Your task to perform on an android device: install app "Google Maps" Image 0: 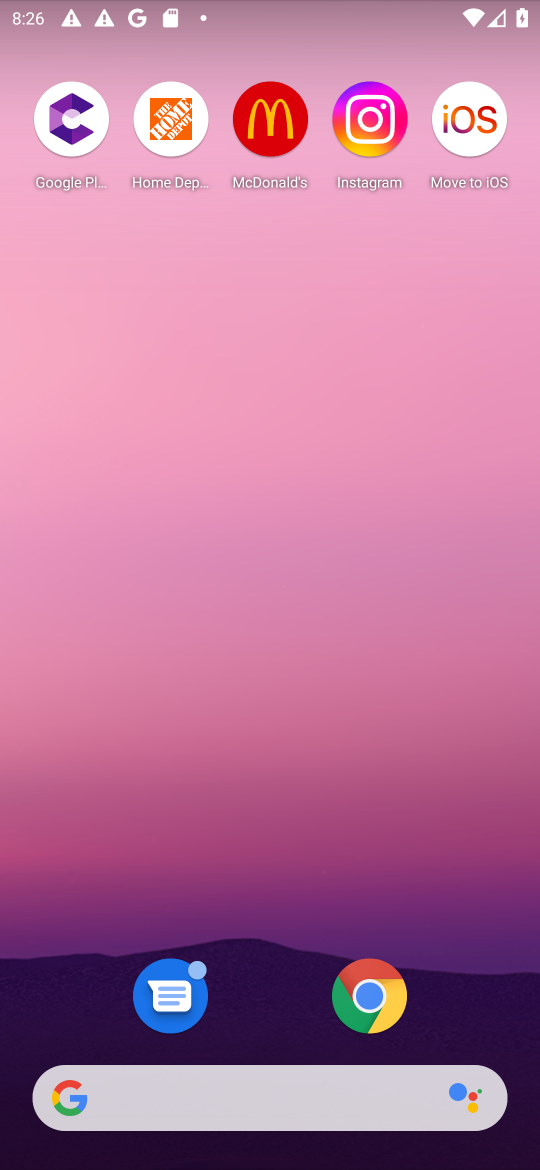
Step 0: press home button
Your task to perform on an android device: install app "Google Maps" Image 1: 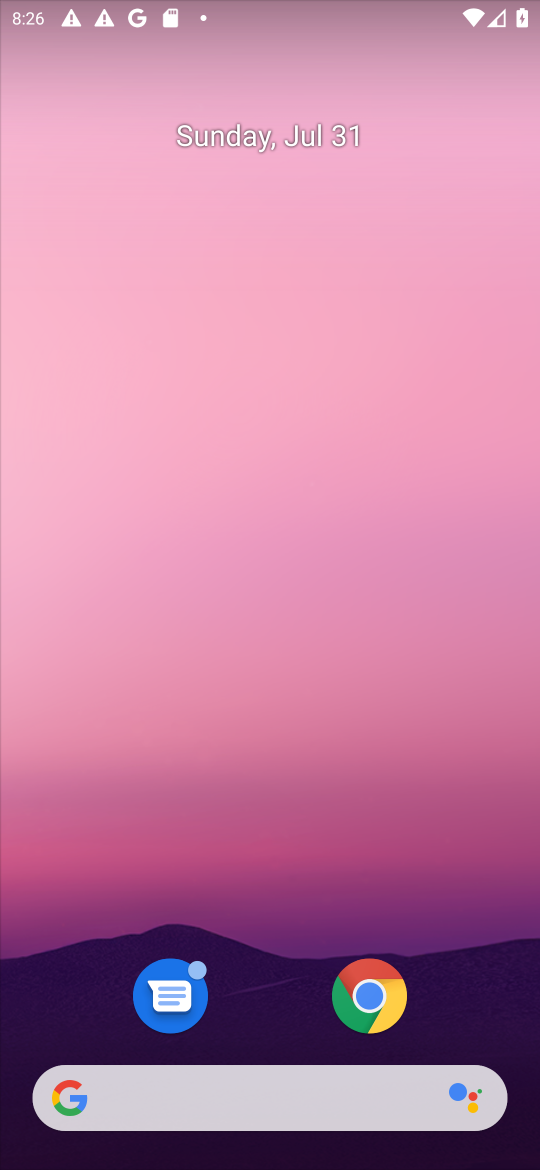
Step 1: drag from (442, 1011) to (449, 170)
Your task to perform on an android device: install app "Google Maps" Image 2: 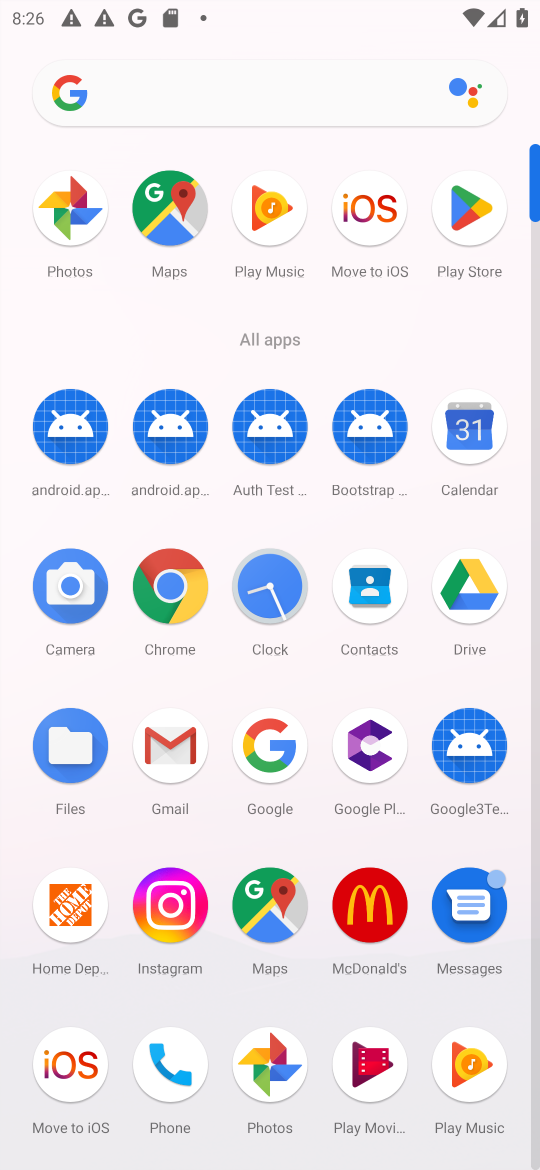
Step 2: click (470, 212)
Your task to perform on an android device: install app "Google Maps" Image 3: 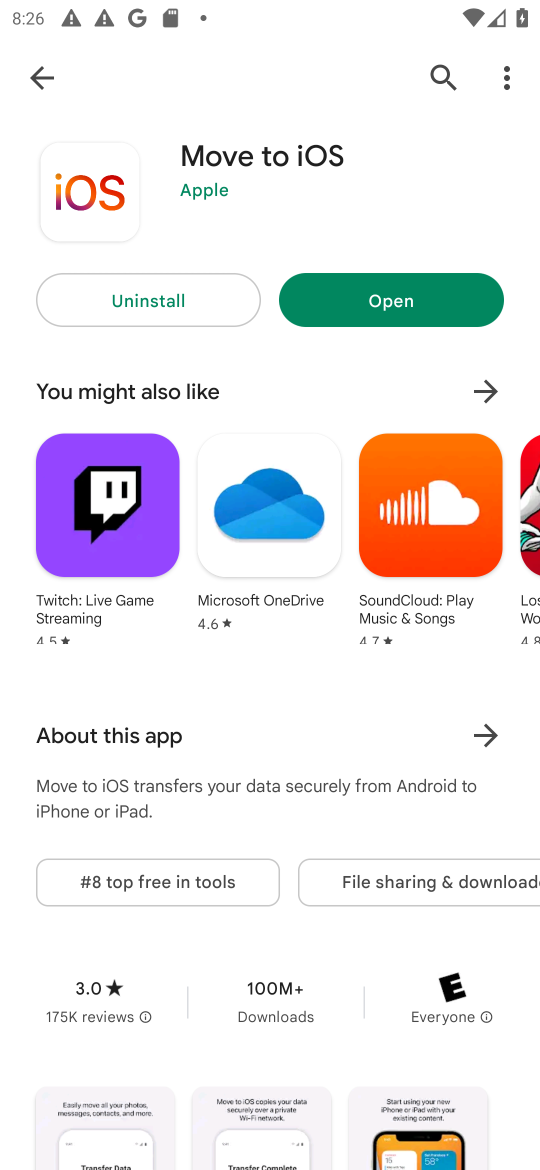
Step 3: press back button
Your task to perform on an android device: install app "Google Maps" Image 4: 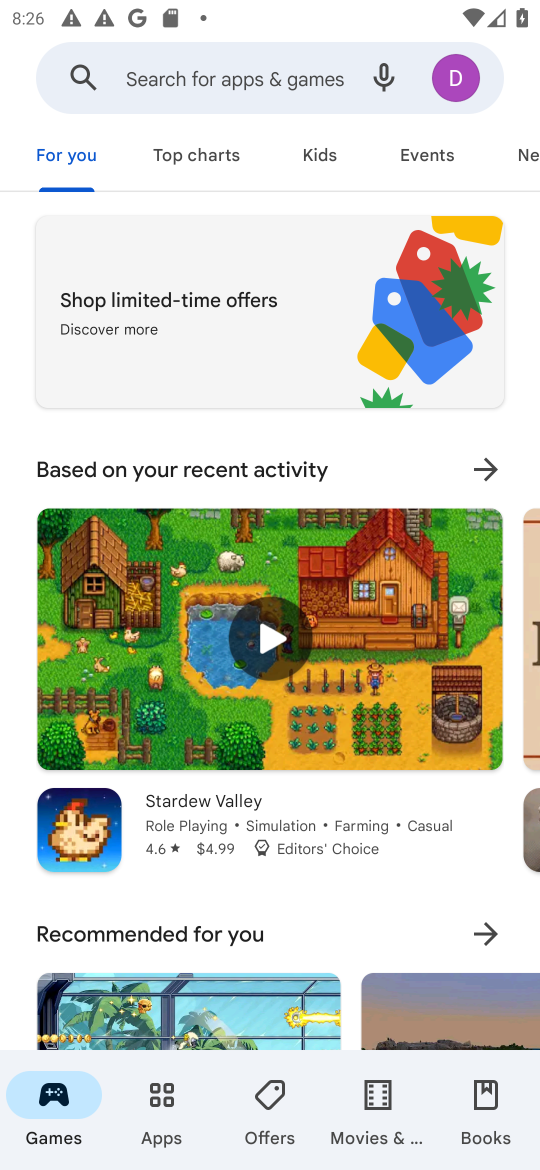
Step 4: type "google maps"
Your task to perform on an android device: install app "Google Maps" Image 5: 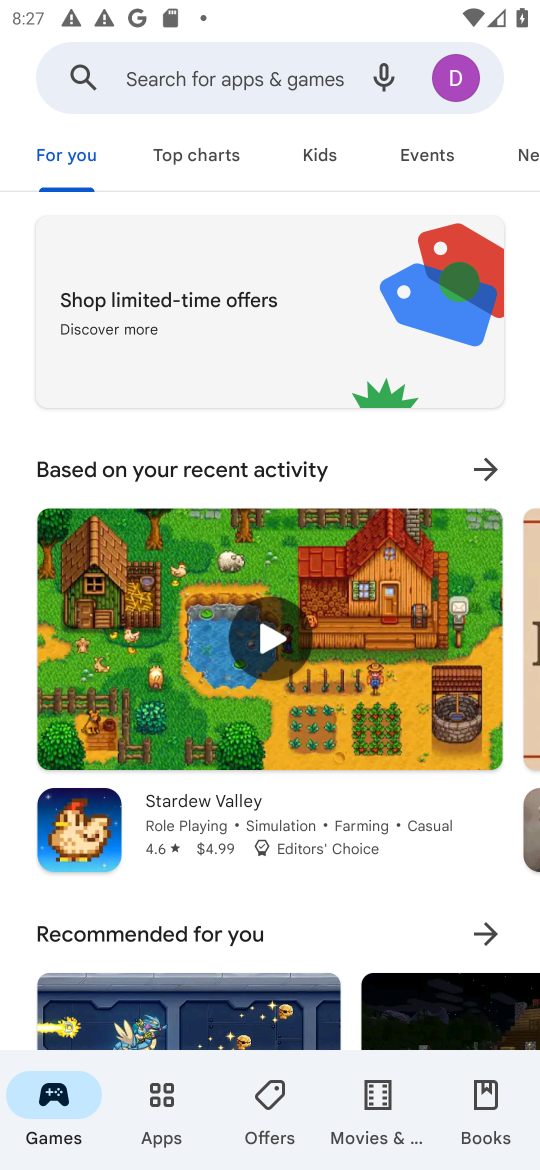
Step 5: click (264, 69)
Your task to perform on an android device: install app "Google Maps" Image 6: 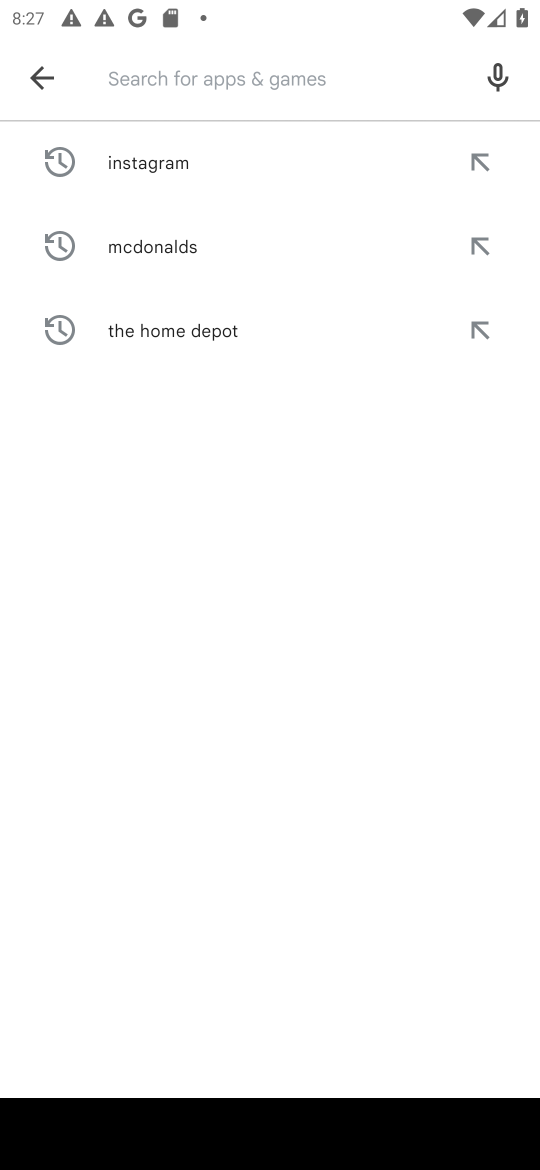
Step 6: type "google maps"
Your task to perform on an android device: install app "Google Maps" Image 7: 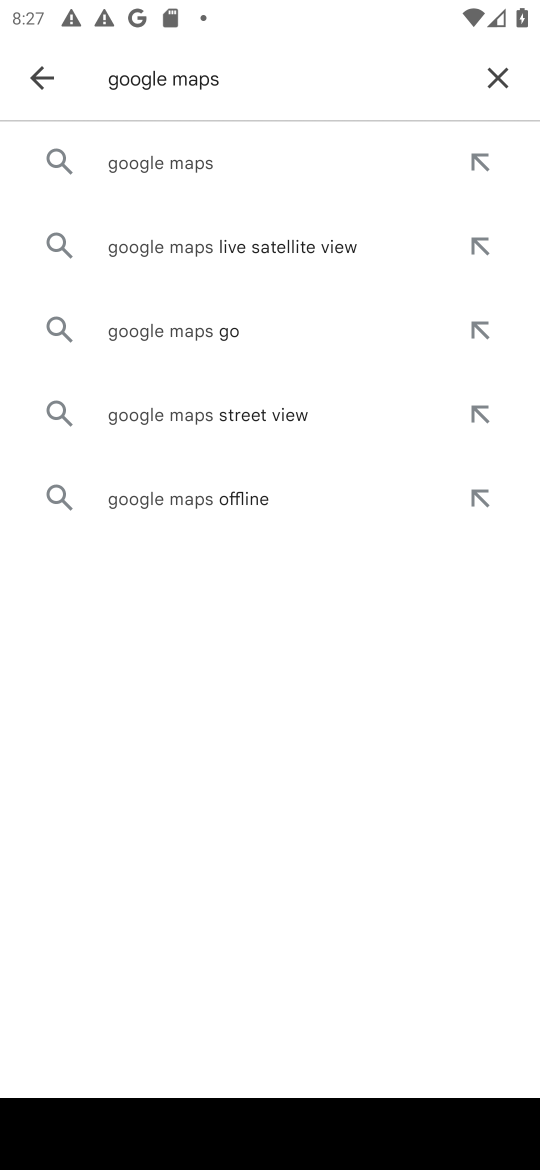
Step 7: click (221, 177)
Your task to perform on an android device: install app "Google Maps" Image 8: 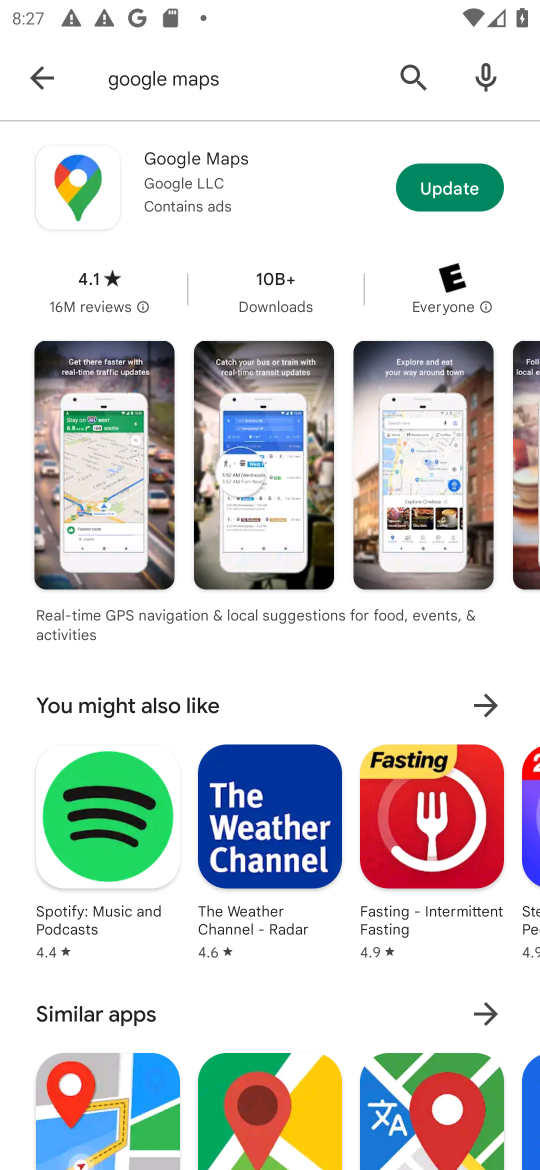
Step 8: task complete